Your task to perform on an android device: clear all cookies in the chrome app Image 0: 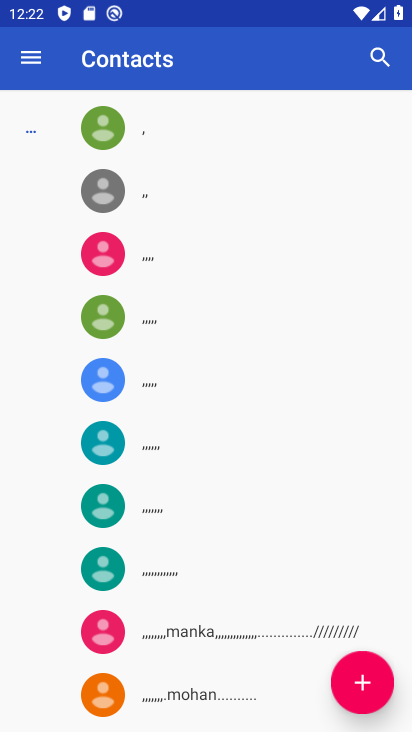
Step 0: press home button
Your task to perform on an android device: clear all cookies in the chrome app Image 1: 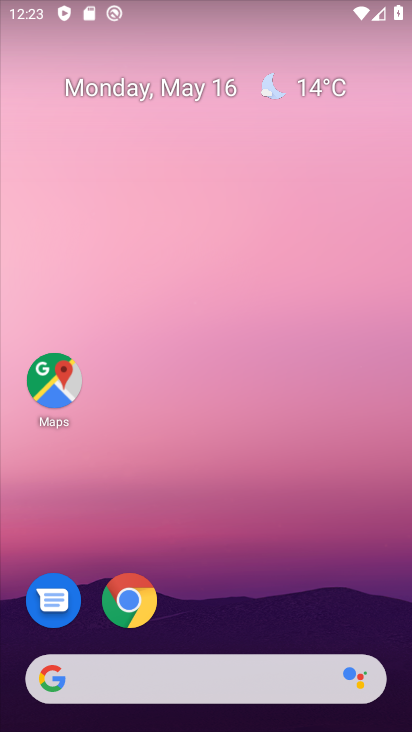
Step 1: click (132, 604)
Your task to perform on an android device: clear all cookies in the chrome app Image 2: 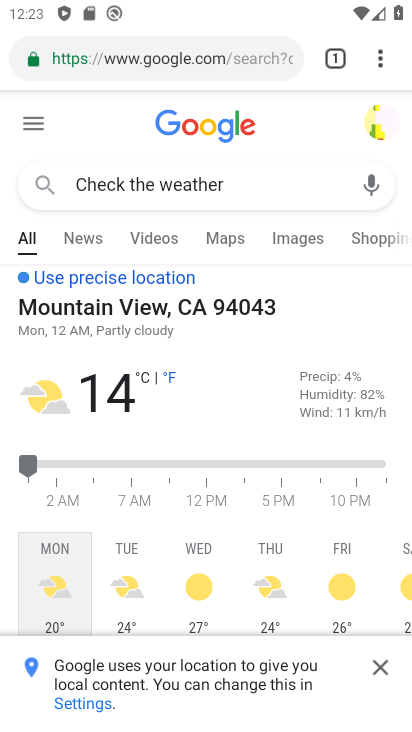
Step 2: drag from (378, 51) to (133, 624)
Your task to perform on an android device: clear all cookies in the chrome app Image 3: 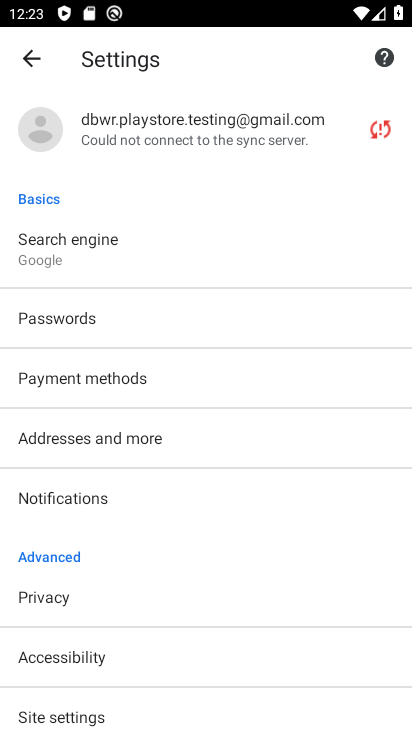
Step 3: click (20, 582)
Your task to perform on an android device: clear all cookies in the chrome app Image 4: 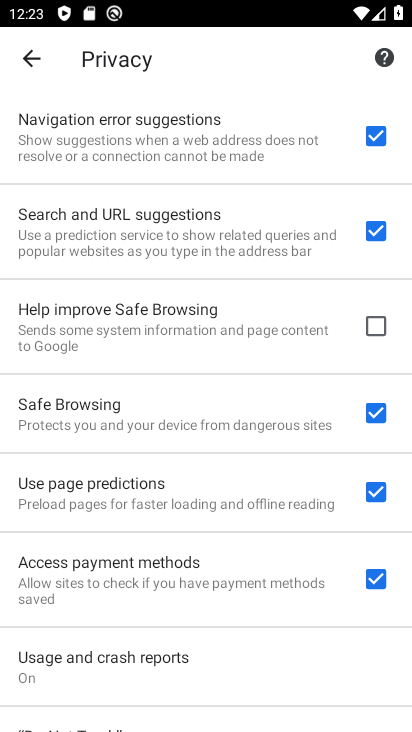
Step 4: drag from (223, 648) to (299, 26)
Your task to perform on an android device: clear all cookies in the chrome app Image 5: 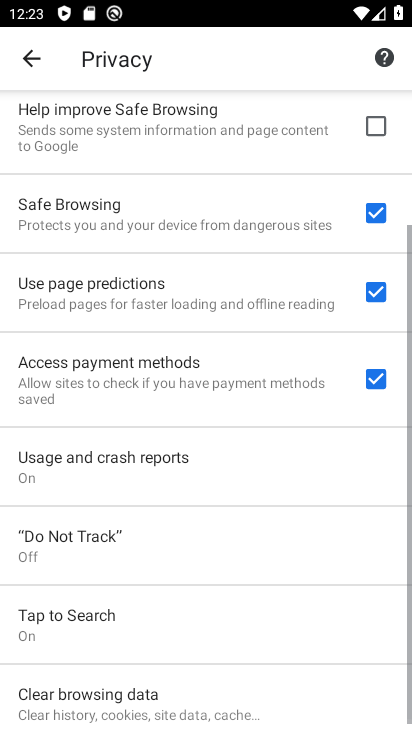
Step 5: drag from (257, 581) to (279, 109)
Your task to perform on an android device: clear all cookies in the chrome app Image 6: 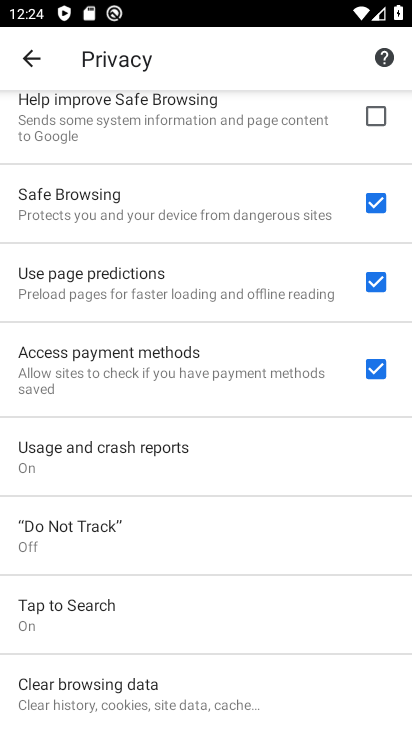
Step 6: drag from (221, 656) to (183, 208)
Your task to perform on an android device: clear all cookies in the chrome app Image 7: 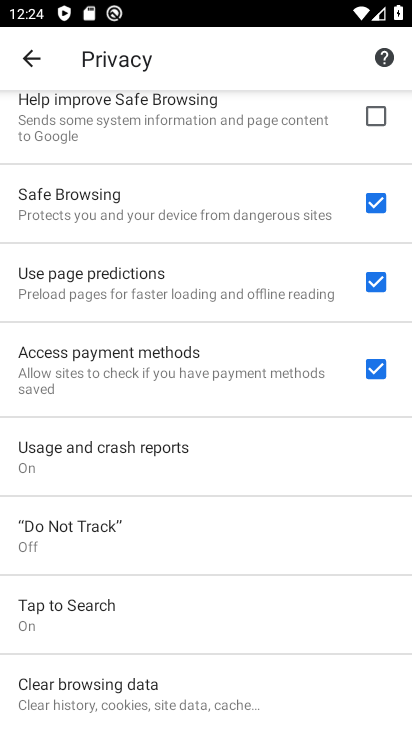
Step 7: click (106, 695)
Your task to perform on an android device: clear all cookies in the chrome app Image 8: 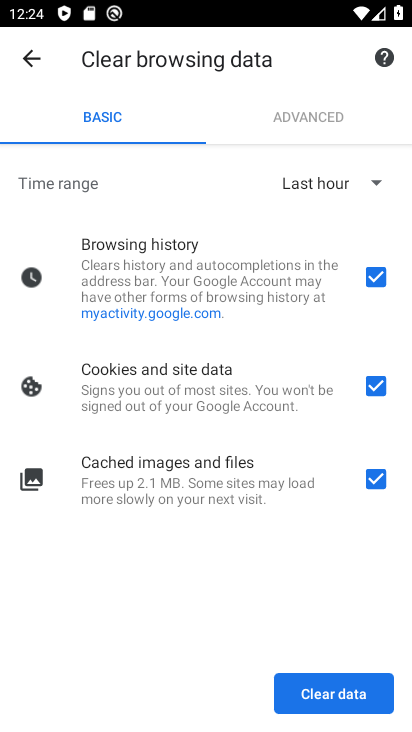
Step 8: click (366, 698)
Your task to perform on an android device: clear all cookies in the chrome app Image 9: 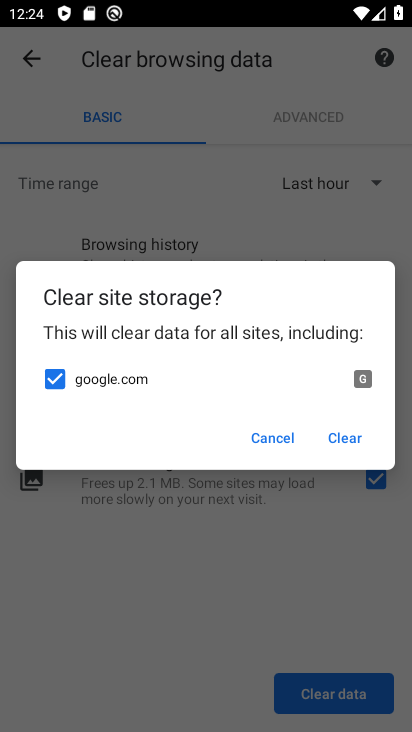
Step 9: click (347, 434)
Your task to perform on an android device: clear all cookies in the chrome app Image 10: 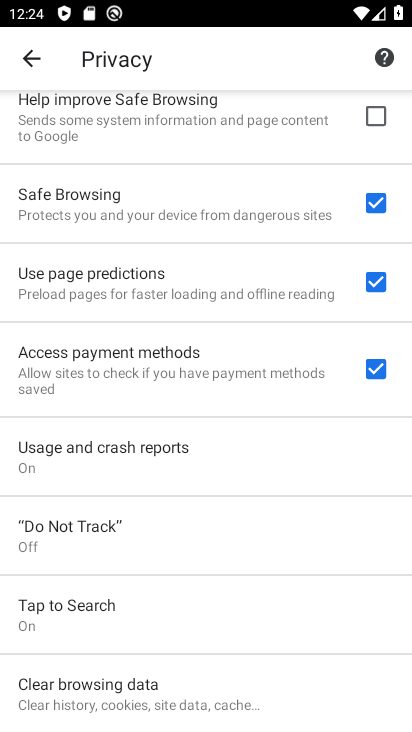
Step 10: task complete